Your task to perform on an android device: find which apps use the phone's location Image 0: 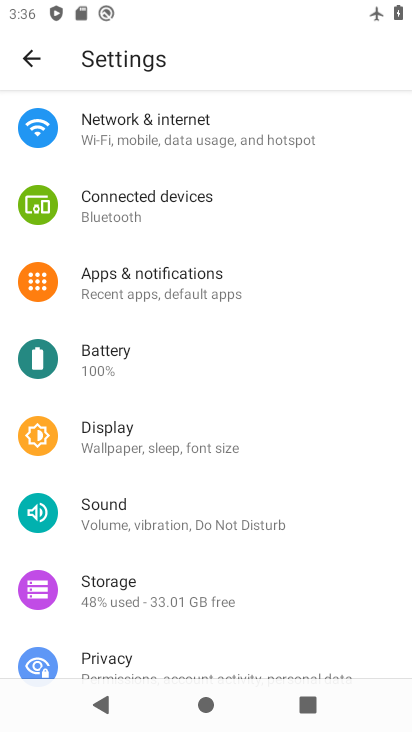
Step 0: drag from (218, 568) to (239, 218)
Your task to perform on an android device: find which apps use the phone's location Image 1: 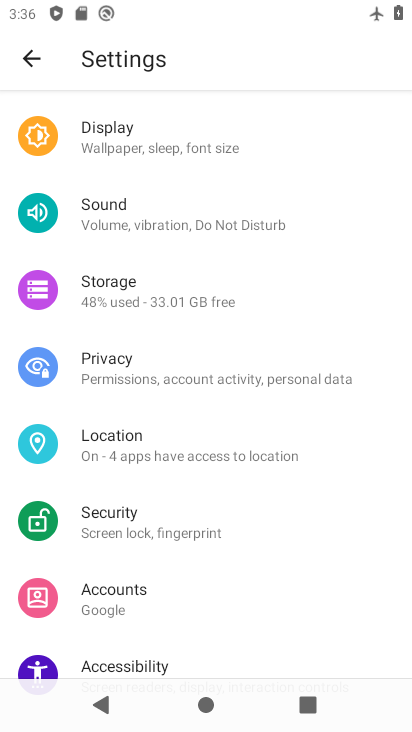
Step 1: click (96, 423)
Your task to perform on an android device: find which apps use the phone's location Image 2: 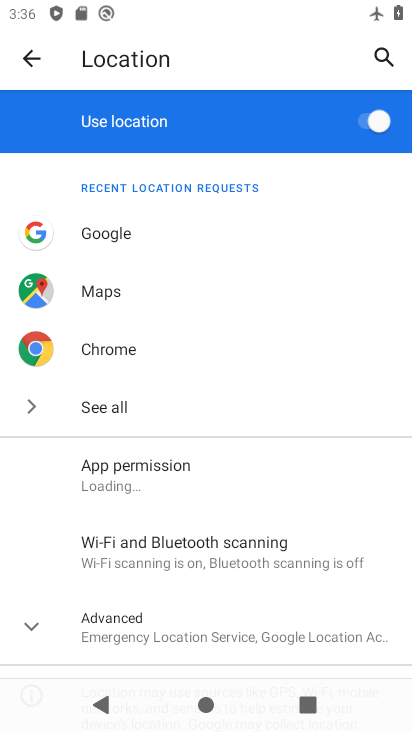
Step 2: drag from (188, 479) to (291, 268)
Your task to perform on an android device: find which apps use the phone's location Image 3: 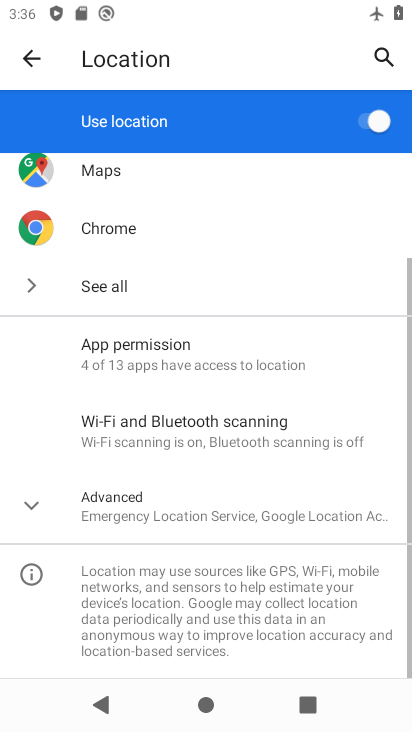
Step 3: click (147, 337)
Your task to perform on an android device: find which apps use the phone's location Image 4: 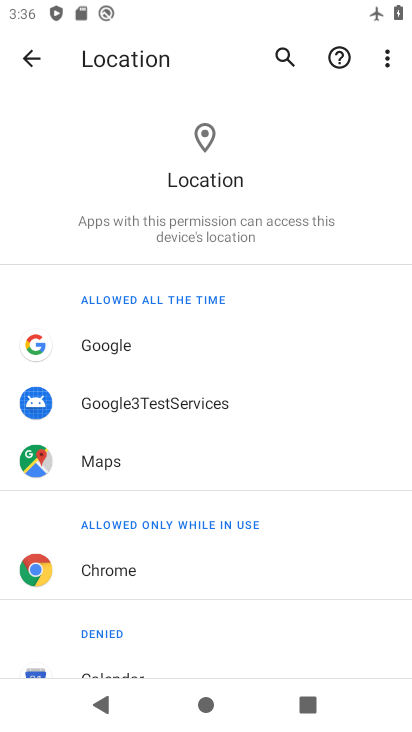
Step 4: task complete